Your task to perform on an android device: Open Chrome and go to settings Image 0: 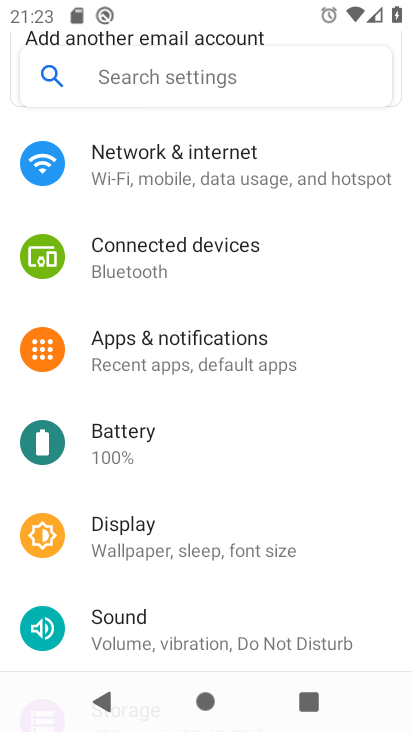
Step 0: press home button
Your task to perform on an android device: Open Chrome and go to settings Image 1: 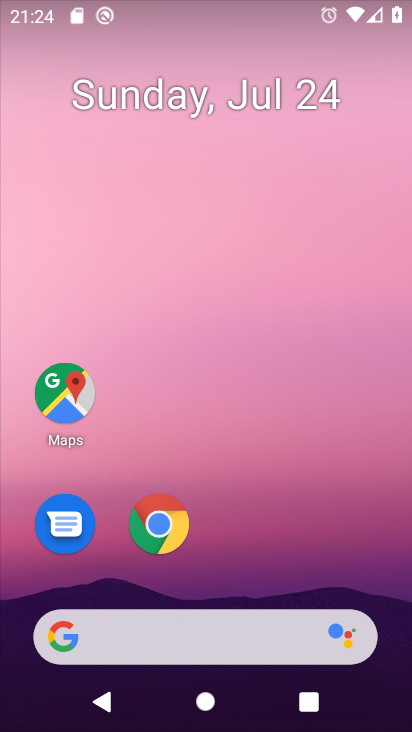
Step 1: drag from (243, 561) to (282, 19)
Your task to perform on an android device: Open Chrome and go to settings Image 2: 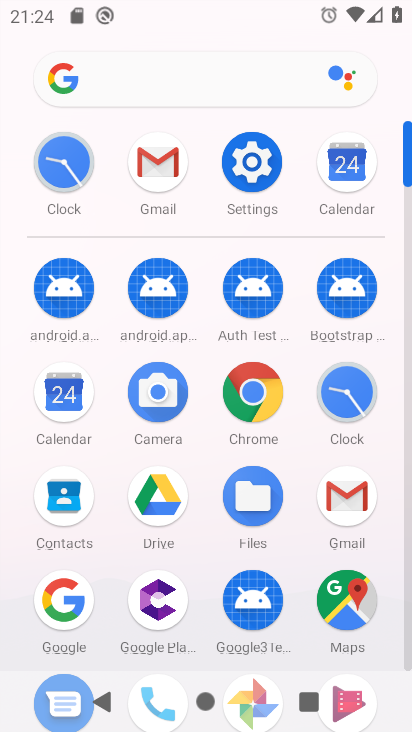
Step 2: click (256, 394)
Your task to perform on an android device: Open Chrome and go to settings Image 3: 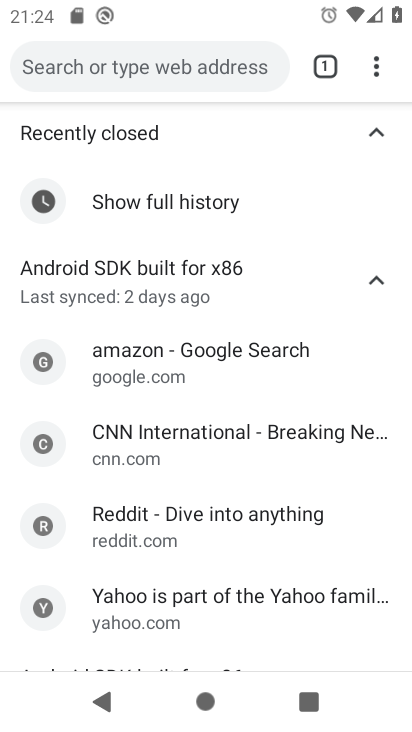
Step 3: click (373, 64)
Your task to perform on an android device: Open Chrome and go to settings Image 4: 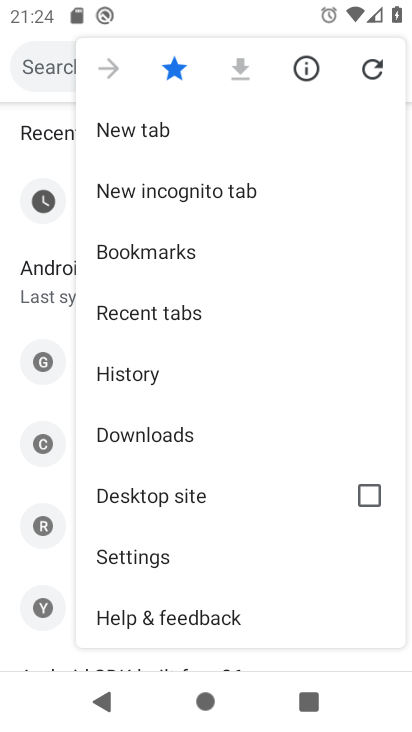
Step 4: click (157, 555)
Your task to perform on an android device: Open Chrome and go to settings Image 5: 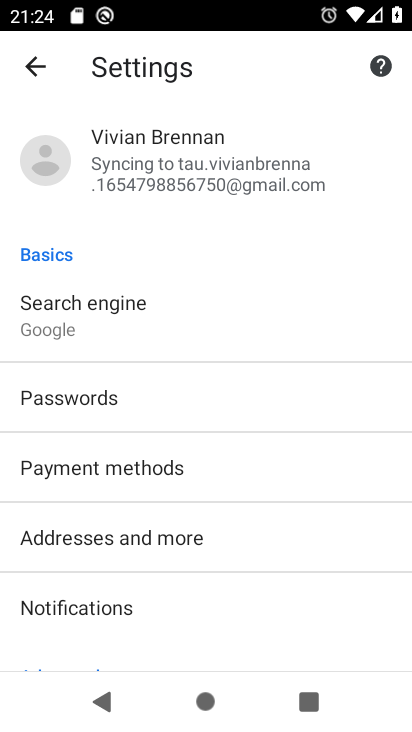
Step 5: task complete